Your task to perform on an android device: Open calendar and show me the first week of next month Image 0: 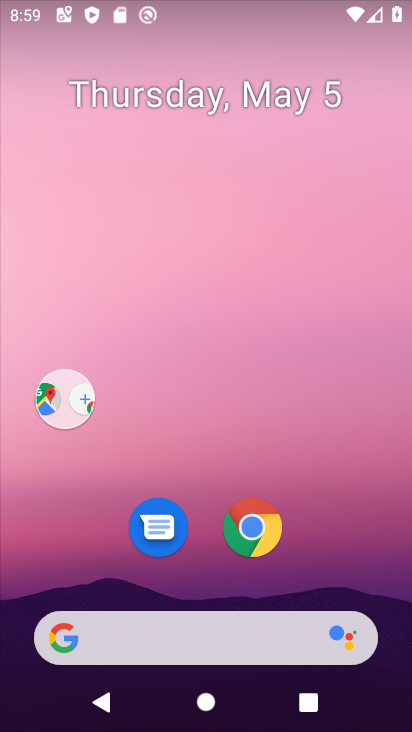
Step 0: drag from (369, 592) to (117, 5)
Your task to perform on an android device: Open calendar and show me the first week of next month Image 1: 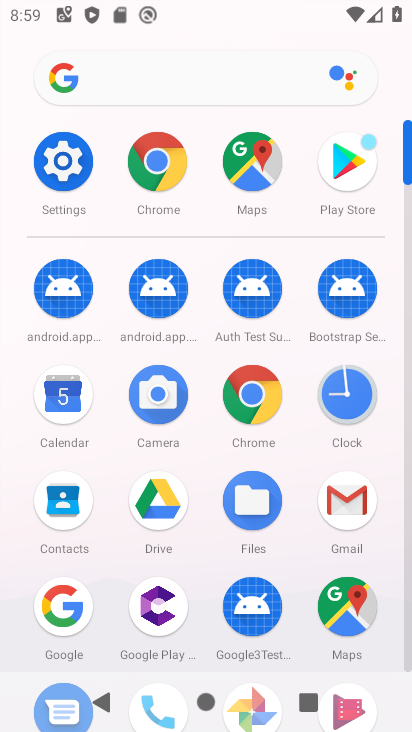
Step 1: click (72, 389)
Your task to perform on an android device: Open calendar and show me the first week of next month Image 2: 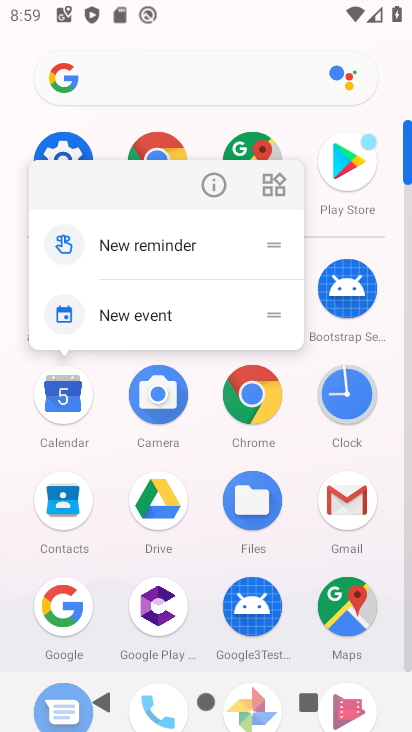
Step 2: click (73, 397)
Your task to perform on an android device: Open calendar and show me the first week of next month Image 3: 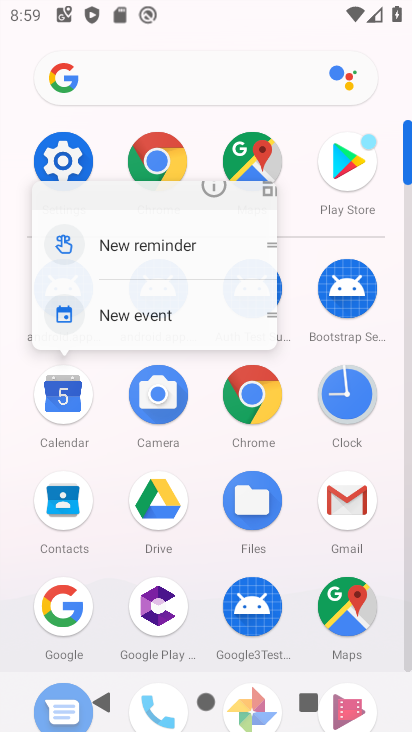
Step 3: click (73, 397)
Your task to perform on an android device: Open calendar and show me the first week of next month Image 4: 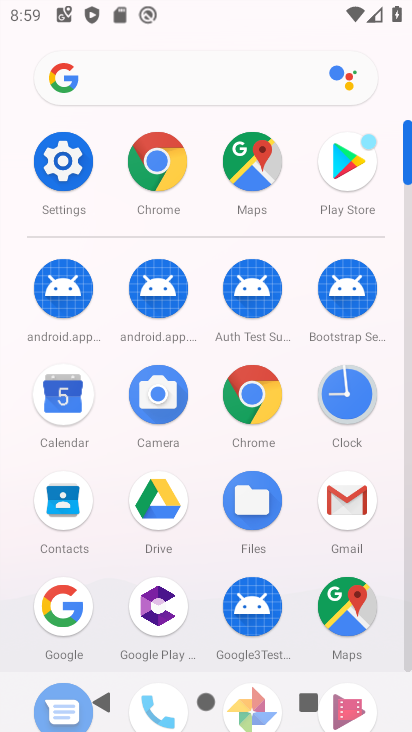
Step 4: click (73, 397)
Your task to perform on an android device: Open calendar and show me the first week of next month Image 5: 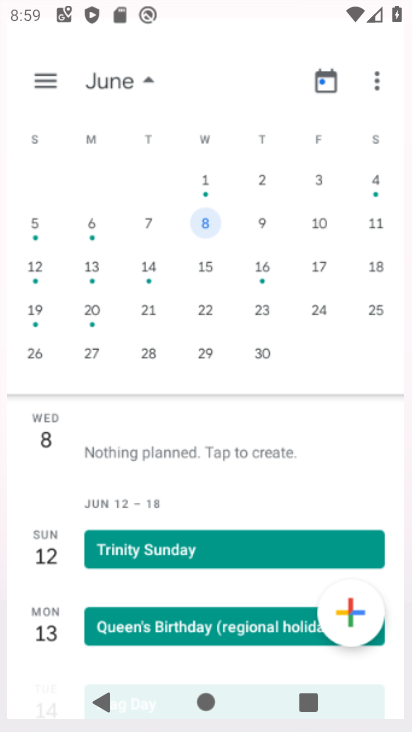
Step 5: click (76, 398)
Your task to perform on an android device: Open calendar and show me the first week of next month Image 6: 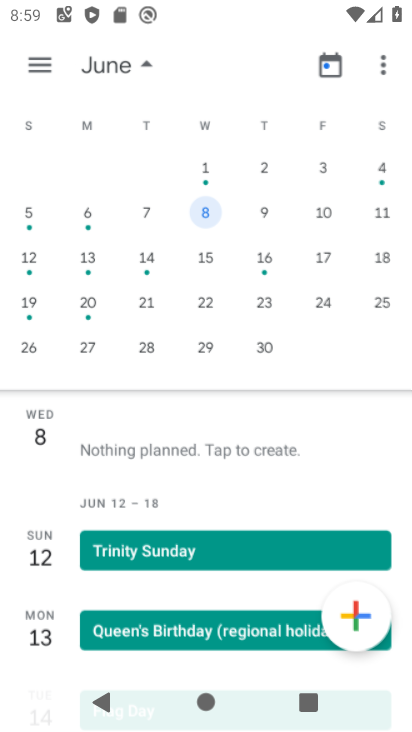
Step 6: click (76, 398)
Your task to perform on an android device: Open calendar and show me the first week of next month Image 7: 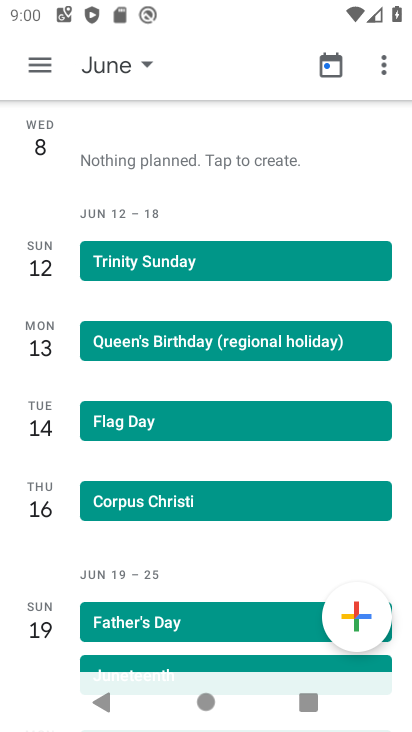
Step 7: click (142, 66)
Your task to perform on an android device: Open calendar and show me the first week of next month Image 8: 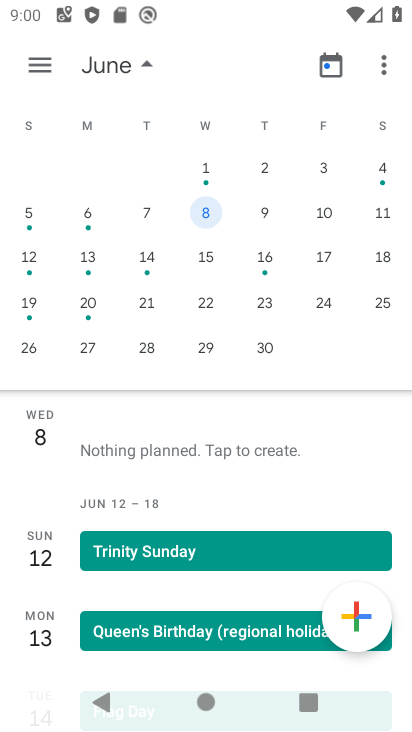
Step 8: click (145, 211)
Your task to perform on an android device: Open calendar and show me the first week of next month Image 9: 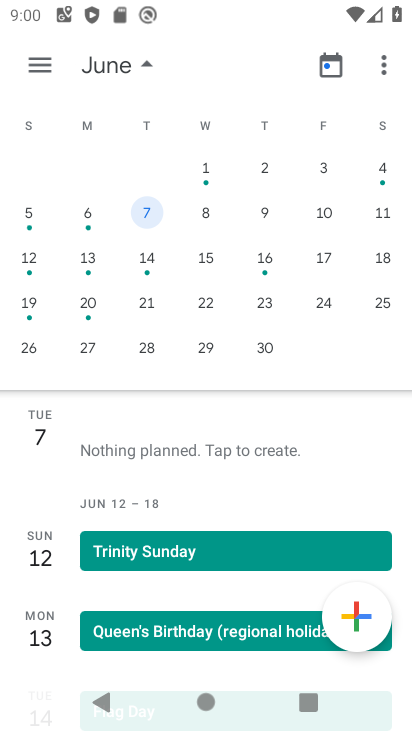
Step 9: click (327, 167)
Your task to perform on an android device: Open calendar and show me the first week of next month Image 10: 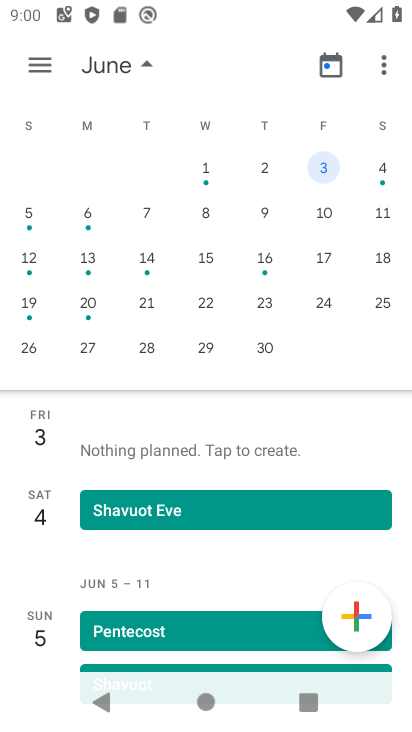
Step 10: click (327, 167)
Your task to perform on an android device: Open calendar and show me the first week of next month Image 11: 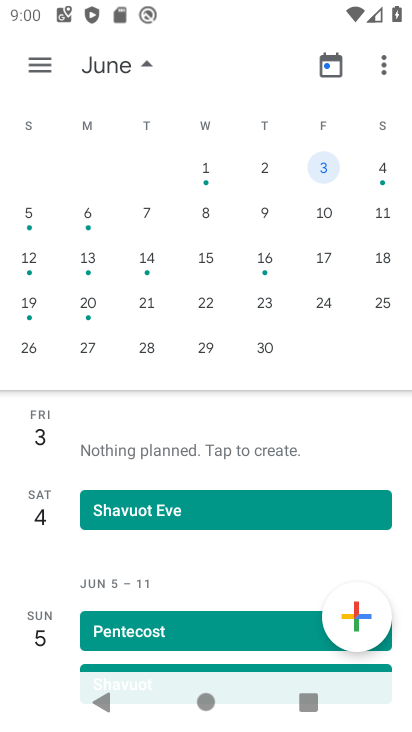
Step 11: task complete